Your task to perform on an android device: Open Google Chrome and click the shortcut for Amazon.com Image 0: 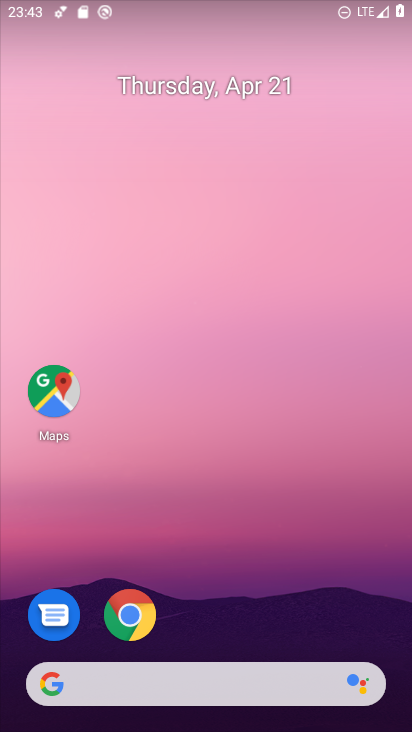
Step 0: press home button
Your task to perform on an android device: Open Google Chrome and click the shortcut for Amazon.com Image 1: 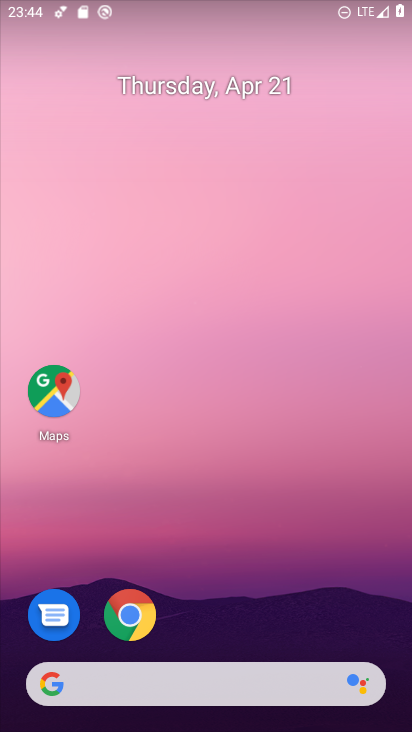
Step 1: drag from (197, 617) to (188, 57)
Your task to perform on an android device: Open Google Chrome and click the shortcut for Amazon.com Image 2: 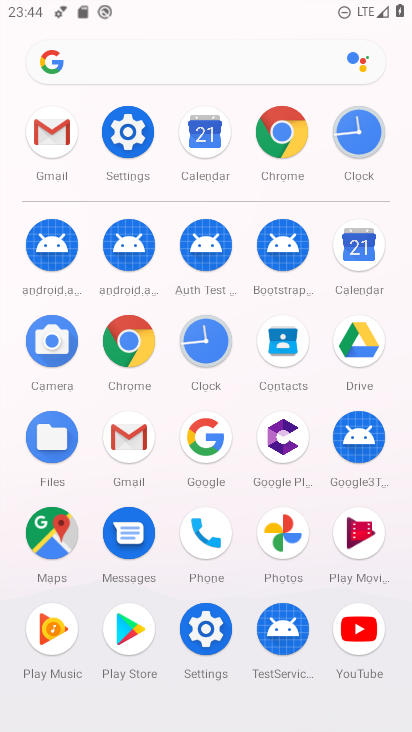
Step 2: click (127, 340)
Your task to perform on an android device: Open Google Chrome and click the shortcut for Amazon.com Image 3: 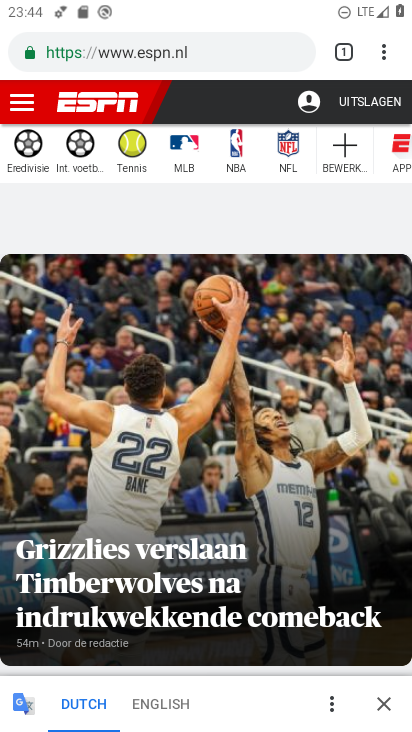
Step 3: click (342, 55)
Your task to perform on an android device: Open Google Chrome and click the shortcut for Amazon.com Image 4: 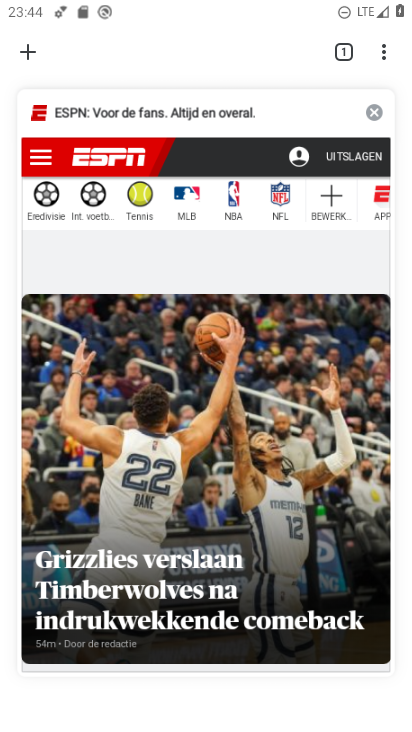
Step 4: click (31, 59)
Your task to perform on an android device: Open Google Chrome and click the shortcut for Amazon.com Image 5: 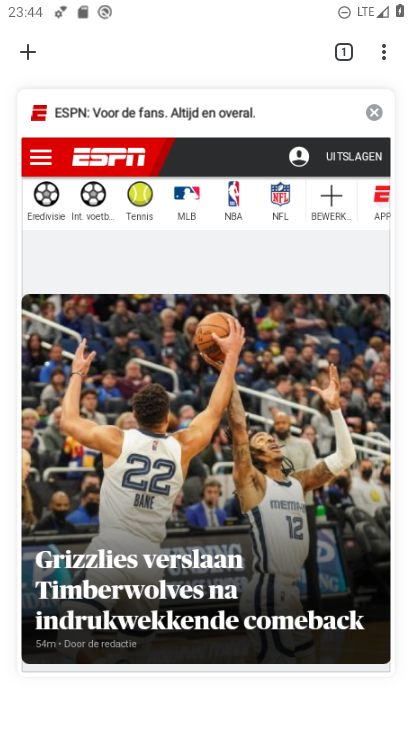
Step 5: click (29, 48)
Your task to perform on an android device: Open Google Chrome and click the shortcut for Amazon.com Image 6: 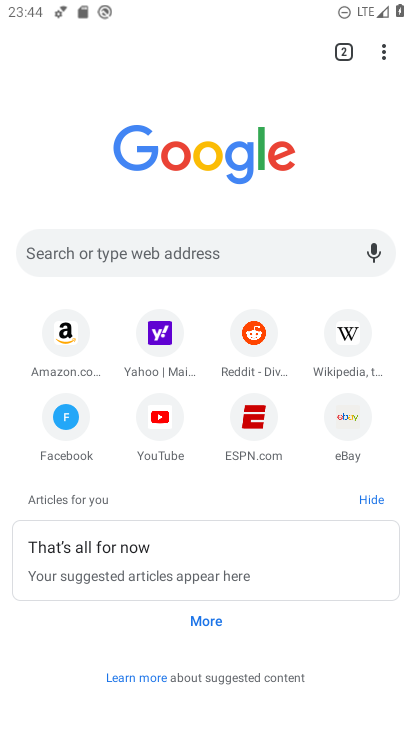
Step 6: click (59, 327)
Your task to perform on an android device: Open Google Chrome and click the shortcut for Amazon.com Image 7: 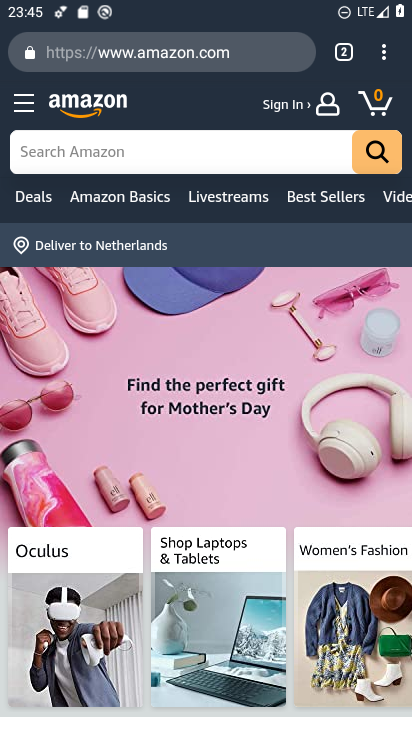
Step 7: task complete